Your task to perform on an android device: Show me the alarms in the clock app Image 0: 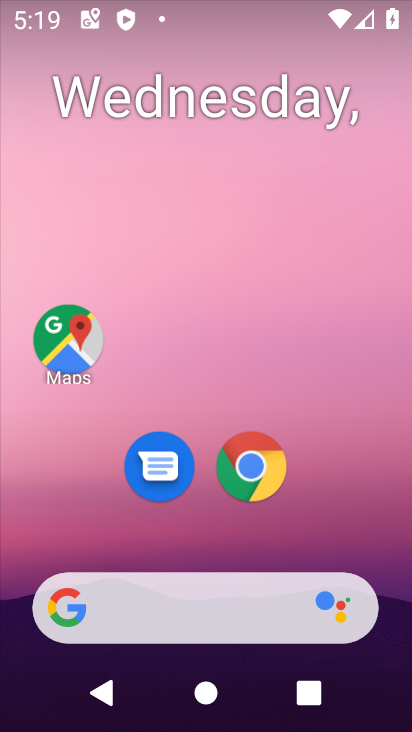
Step 0: drag from (330, 512) to (370, 0)
Your task to perform on an android device: Show me the alarms in the clock app Image 1: 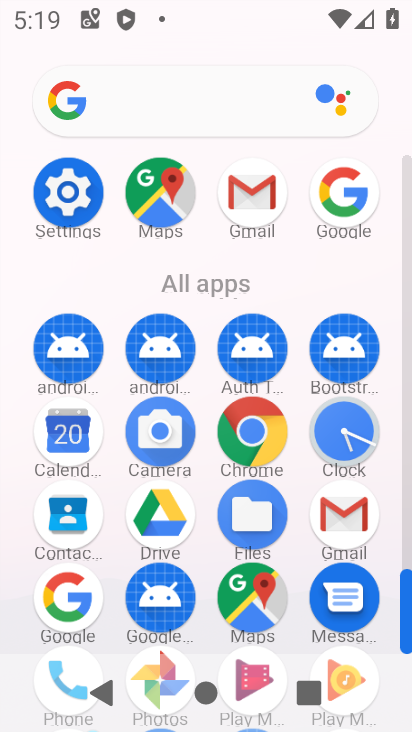
Step 1: click (348, 440)
Your task to perform on an android device: Show me the alarms in the clock app Image 2: 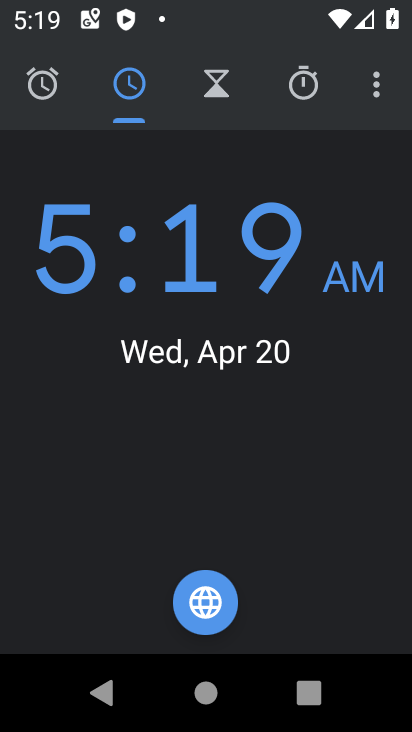
Step 2: click (39, 88)
Your task to perform on an android device: Show me the alarms in the clock app Image 3: 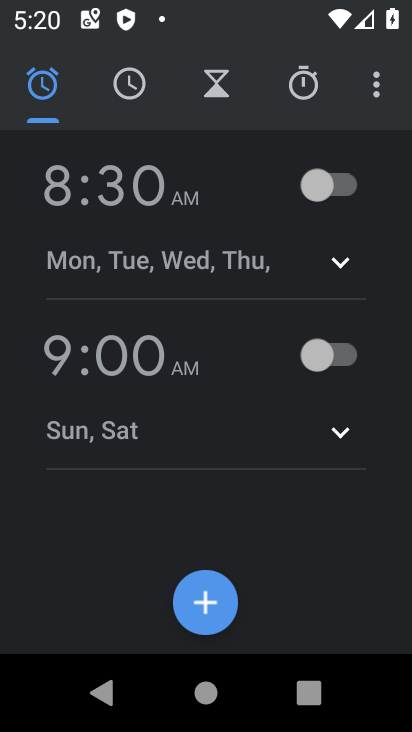
Step 3: task complete